Your task to perform on an android device: Open Google Maps Image 0: 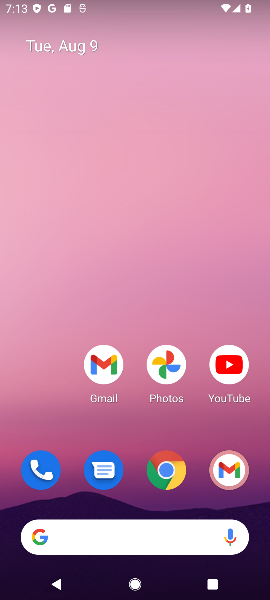
Step 0: drag from (84, 566) to (161, 86)
Your task to perform on an android device: Open Google Maps Image 1: 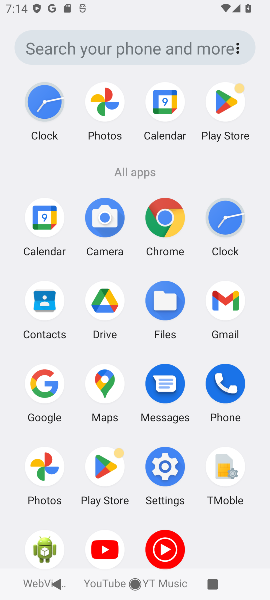
Step 1: click (93, 386)
Your task to perform on an android device: Open Google Maps Image 2: 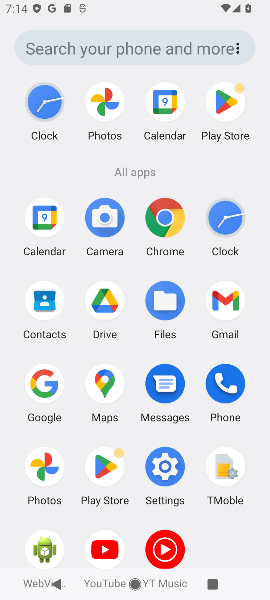
Step 2: click (93, 386)
Your task to perform on an android device: Open Google Maps Image 3: 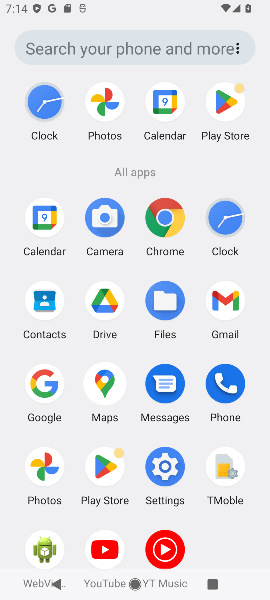
Step 3: click (93, 386)
Your task to perform on an android device: Open Google Maps Image 4: 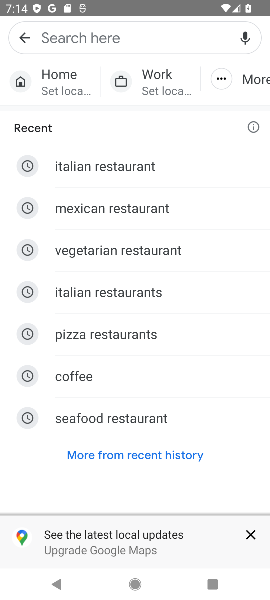
Step 4: task complete